Your task to perform on an android device: Search for pizza restaurants on Maps Image 0: 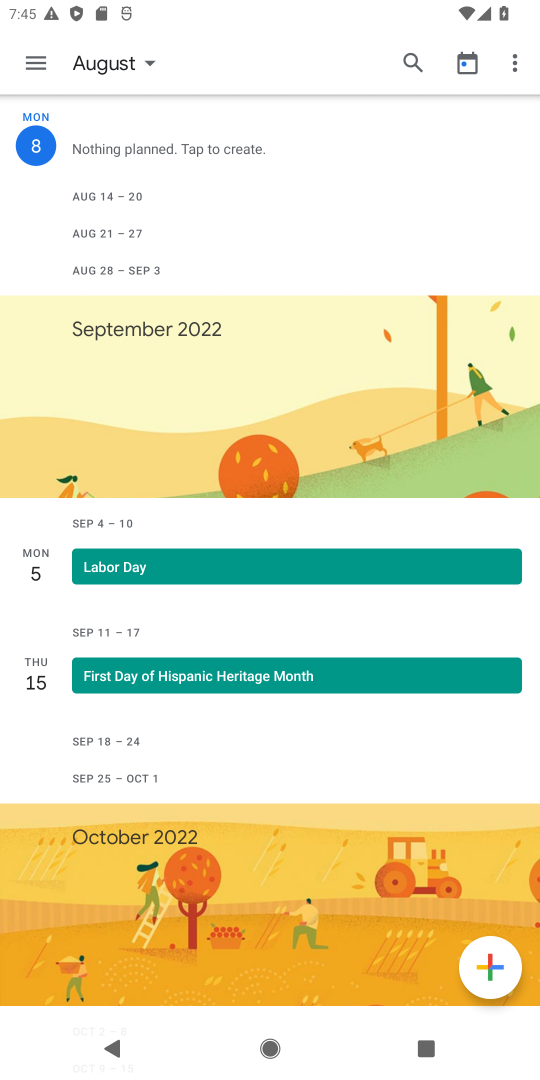
Step 0: press home button
Your task to perform on an android device: Search for pizza restaurants on Maps Image 1: 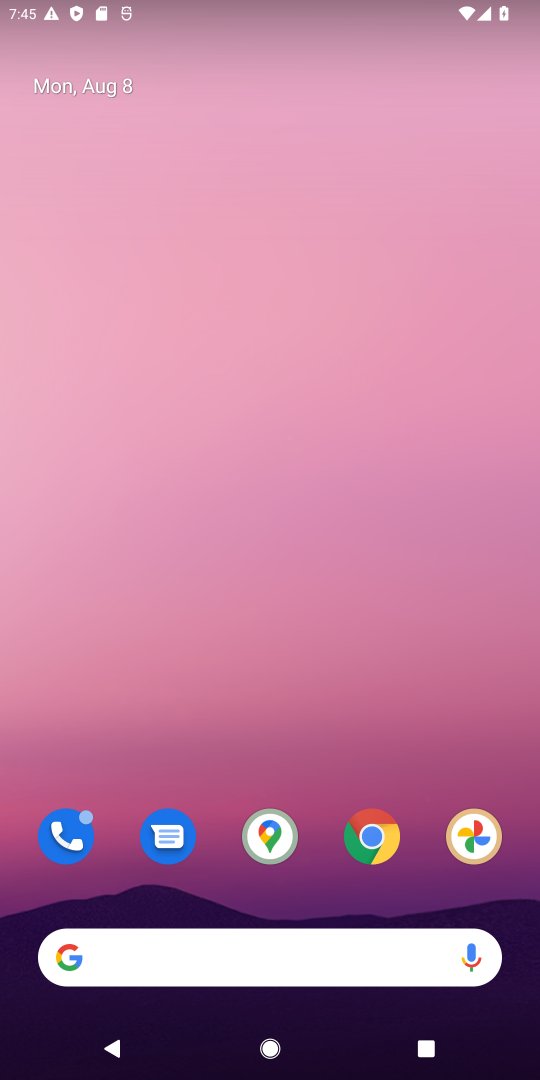
Step 1: drag from (419, 794) to (276, 119)
Your task to perform on an android device: Search for pizza restaurants on Maps Image 2: 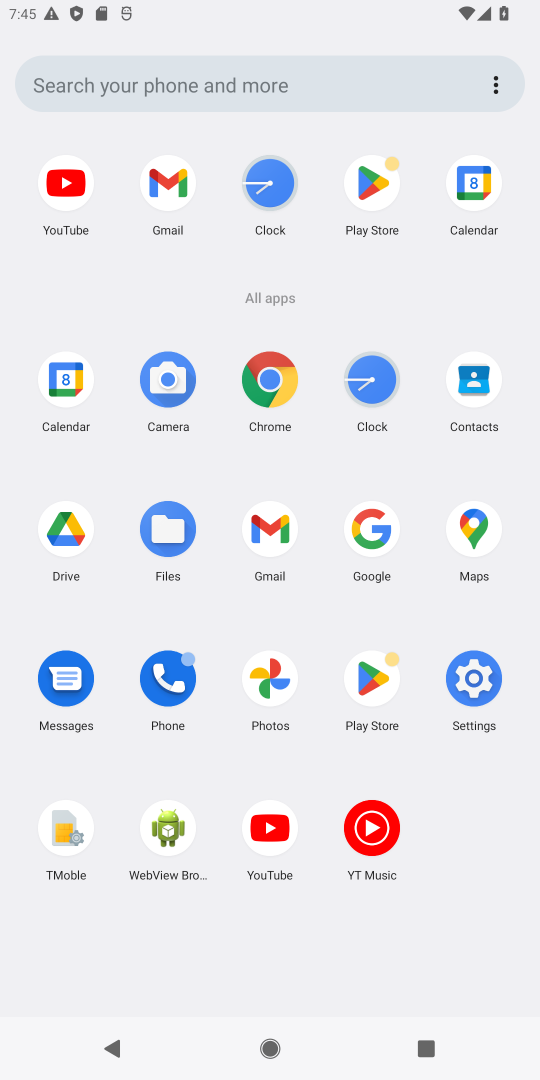
Step 2: click (496, 548)
Your task to perform on an android device: Search for pizza restaurants on Maps Image 3: 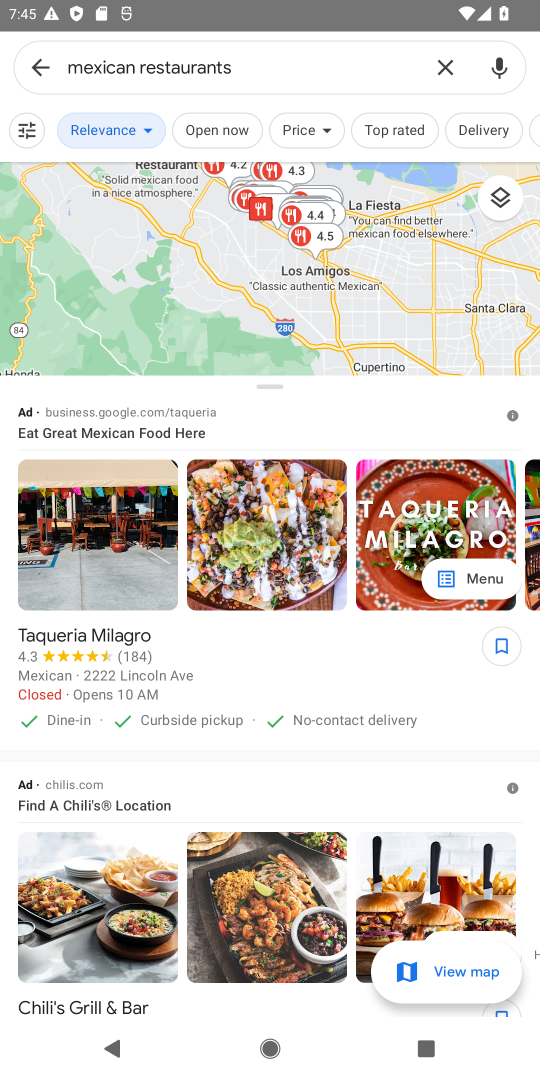
Step 3: click (458, 63)
Your task to perform on an android device: Search for pizza restaurants on Maps Image 4: 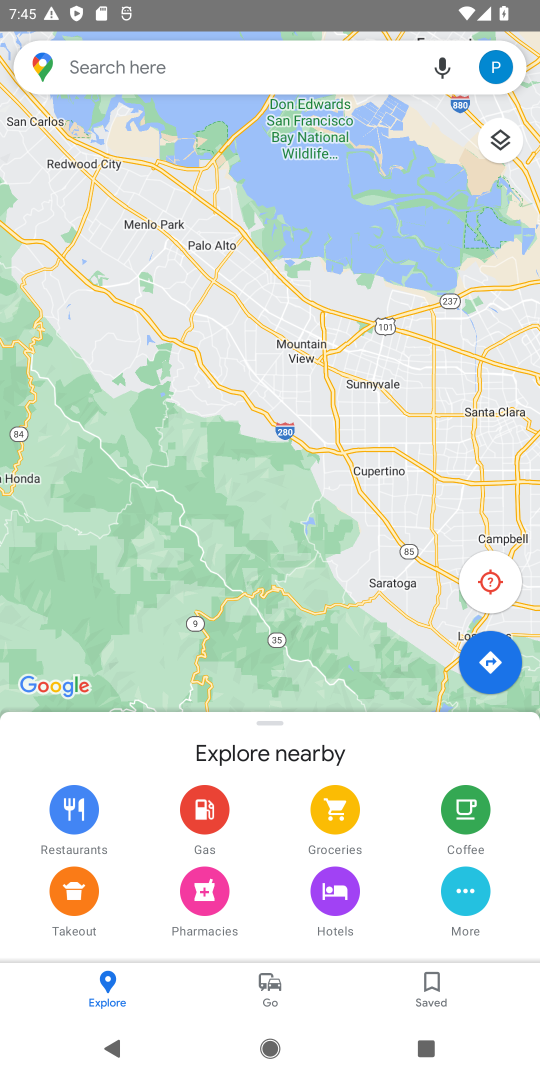
Step 4: click (124, 71)
Your task to perform on an android device: Search for pizza restaurants on Maps Image 5: 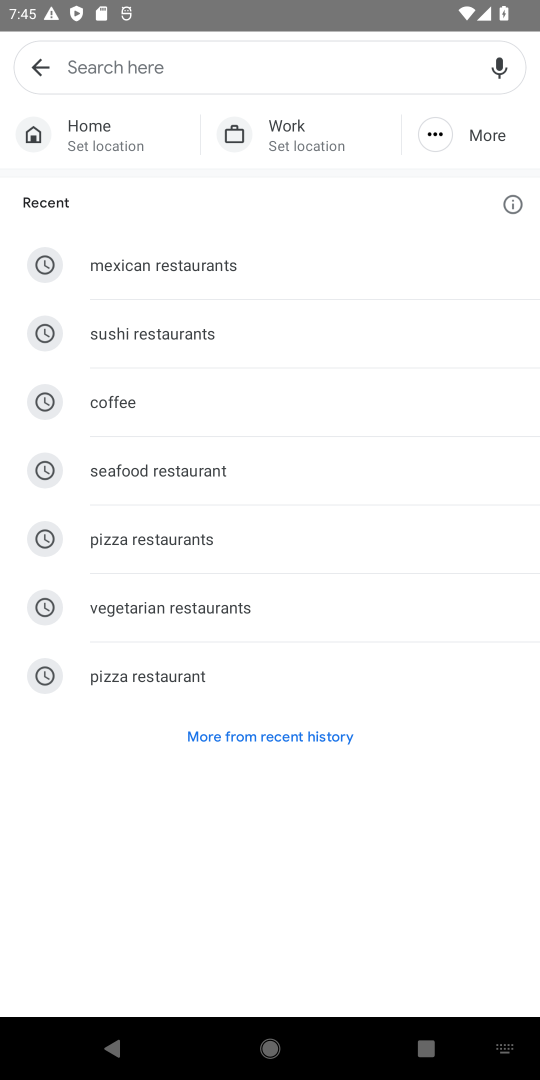
Step 5: click (303, 556)
Your task to perform on an android device: Search for pizza restaurants on Maps Image 6: 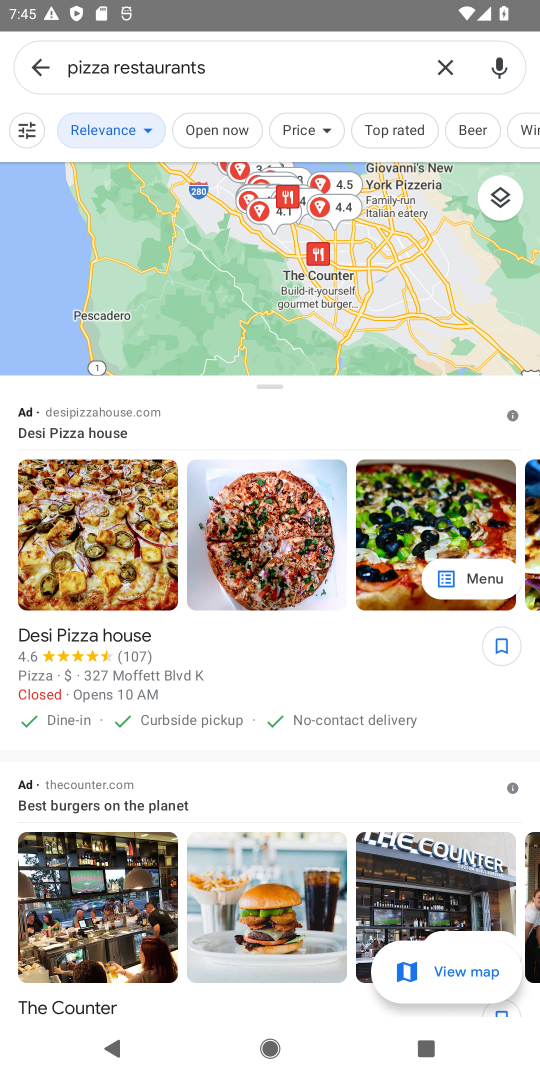
Step 6: task complete